Your task to perform on an android device: Is it going to rain today? Image 0: 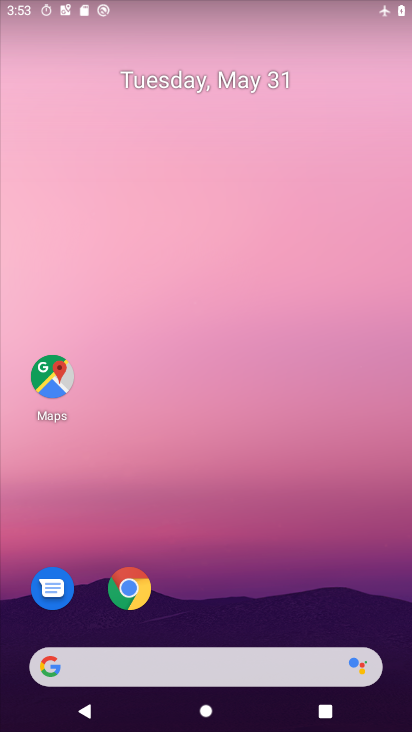
Step 0: drag from (261, 667) to (289, 229)
Your task to perform on an android device: Is it going to rain today? Image 1: 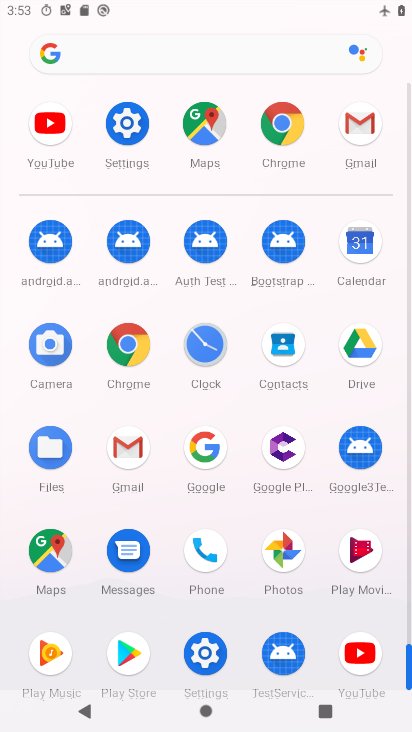
Step 1: click (213, 468)
Your task to perform on an android device: Is it going to rain today? Image 2: 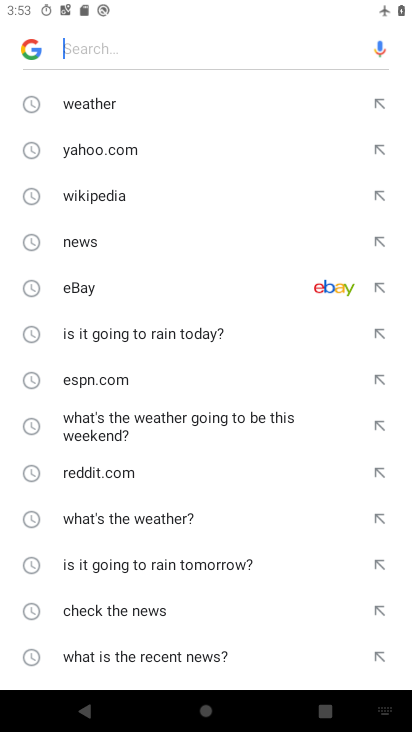
Step 2: click (149, 114)
Your task to perform on an android device: Is it going to rain today? Image 3: 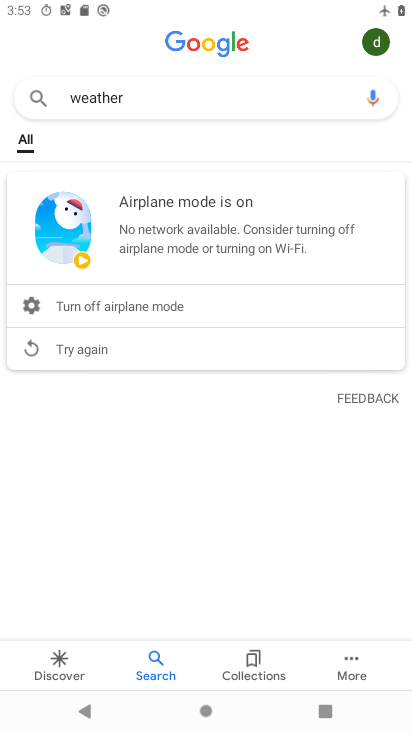
Step 3: task complete